Your task to perform on an android device: toggle javascript in the chrome app Image 0: 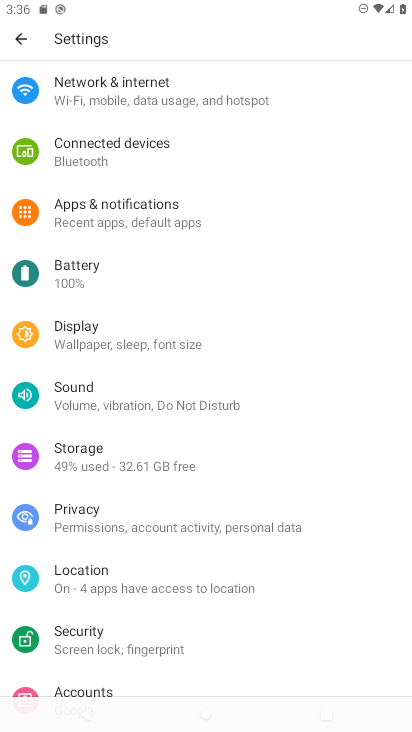
Step 0: press home button
Your task to perform on an android device: toggle javascript in the chrome app Image 1: 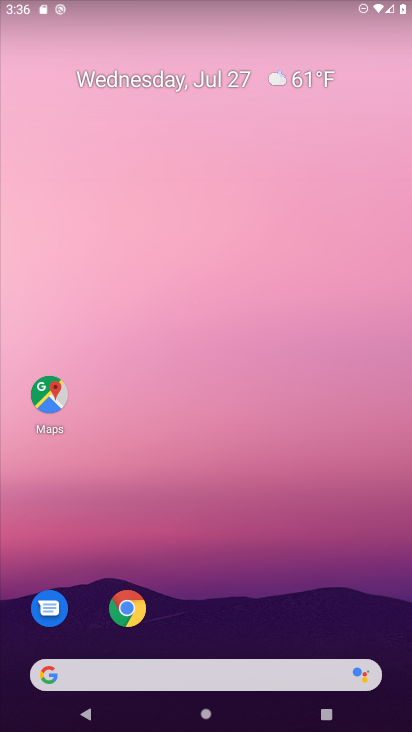
Step 1: click (134, 606)
Your task to perform on an android device: toggle javascript in the chrome app Image 2: 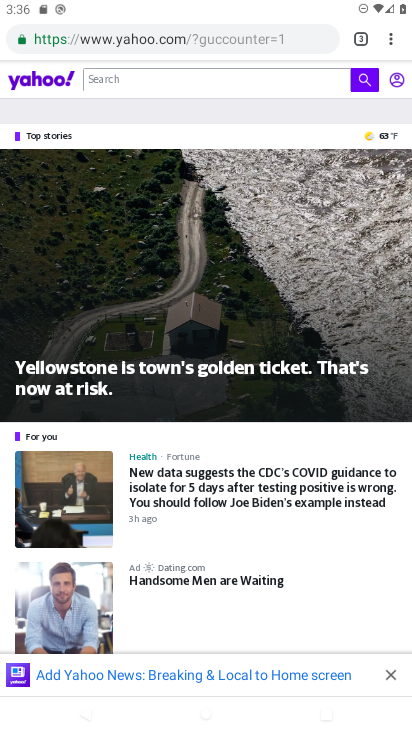
Step 2: click (393, 42)
Your task to perform on an android device: toggle javascript in the chrome app Image 3: 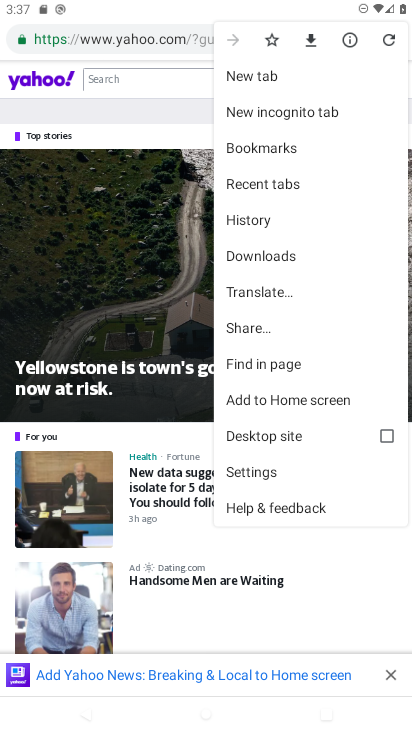
Step 3: click (254, 469)
Your task to perform on an android device: toggle javascript in the chrome app Image 4: 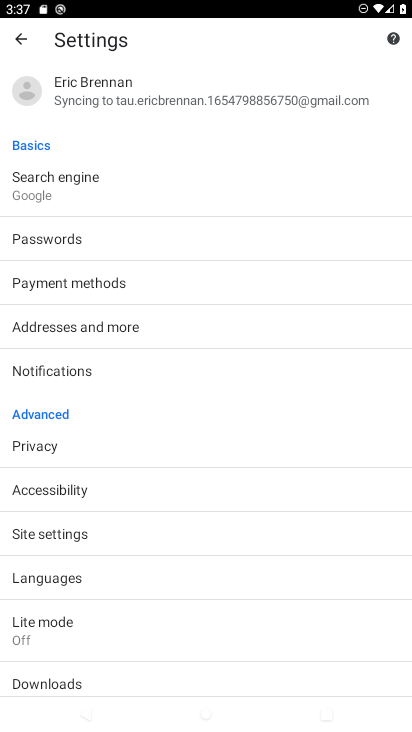
Step 4: click (54, 528)
Your task to perform on an android device: toggle javascript in the chrome app Image 5: 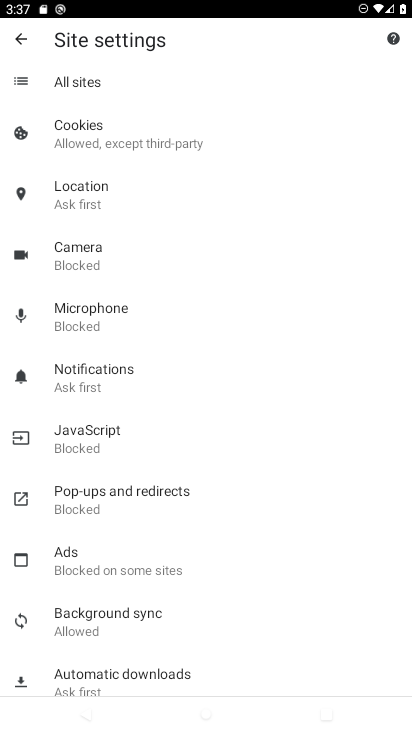
Step 5: click (78, 433)
Your task to perform on an android device: toggle javascript in the chrome app Image 6: 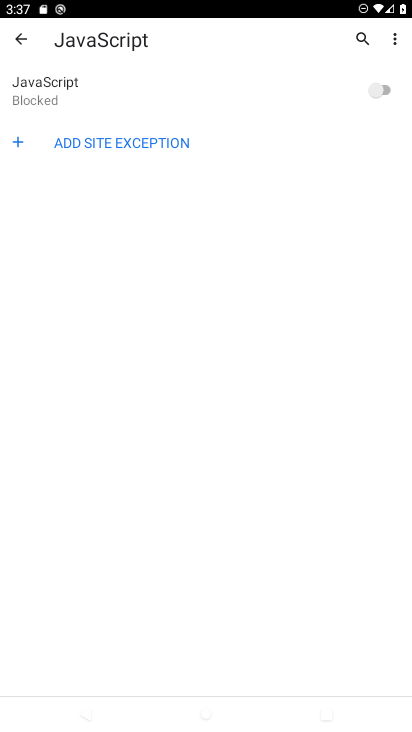
Step 6: click (383, 86)
Your task to perform on an android device: toggle javascript in the chrome app Image 7: 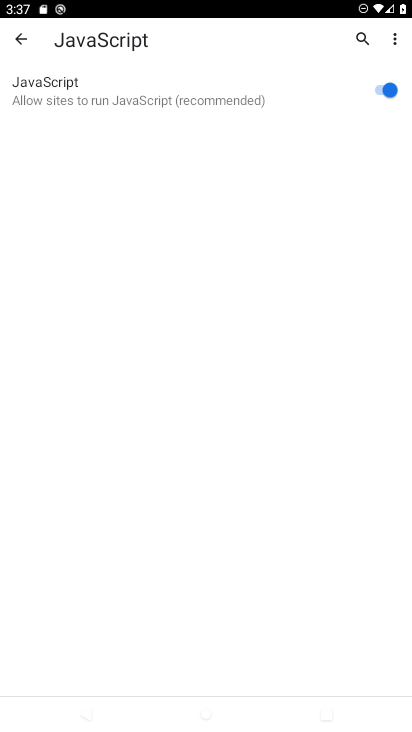
Step 7: task complete